Your task to perform on an android device: Search for the best selling vase on Crate & Barrel Image 0: 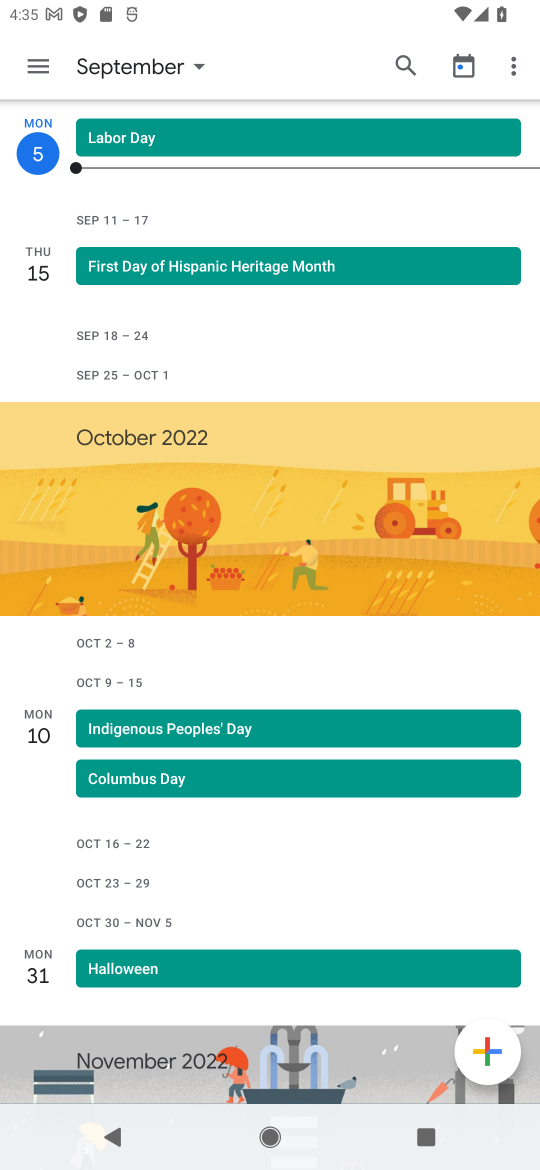
Step 0: press home button
Your task to perform on an android device: Search for the best selling vase on Crate & Barrel Image 1: 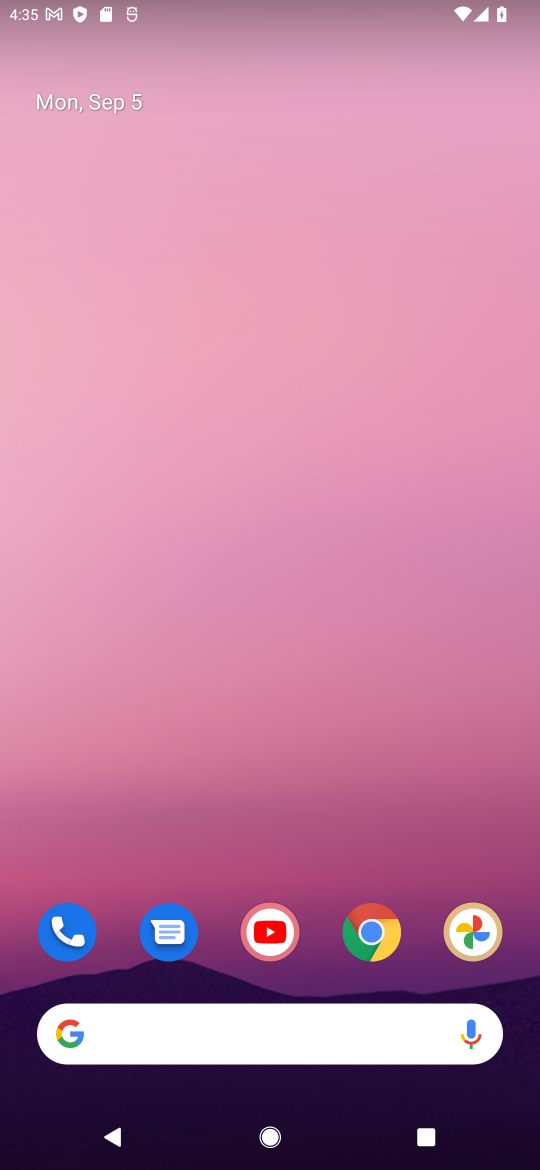
Step 1: drag from (292, 1011) to (263, 32)
Your task to perform on an android device: Search for the best selling vase on Crate & Barrel Image 2: 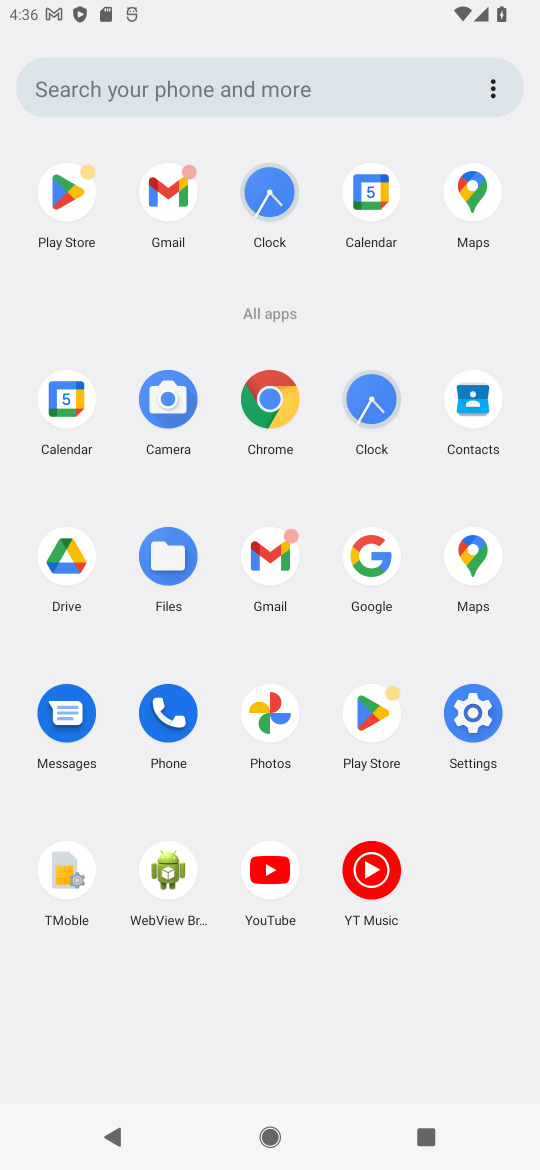
Step 2: click (363, 566)
Your task to perform on an android device: Search for the best selling vase on Crate & Barrel Image 3: 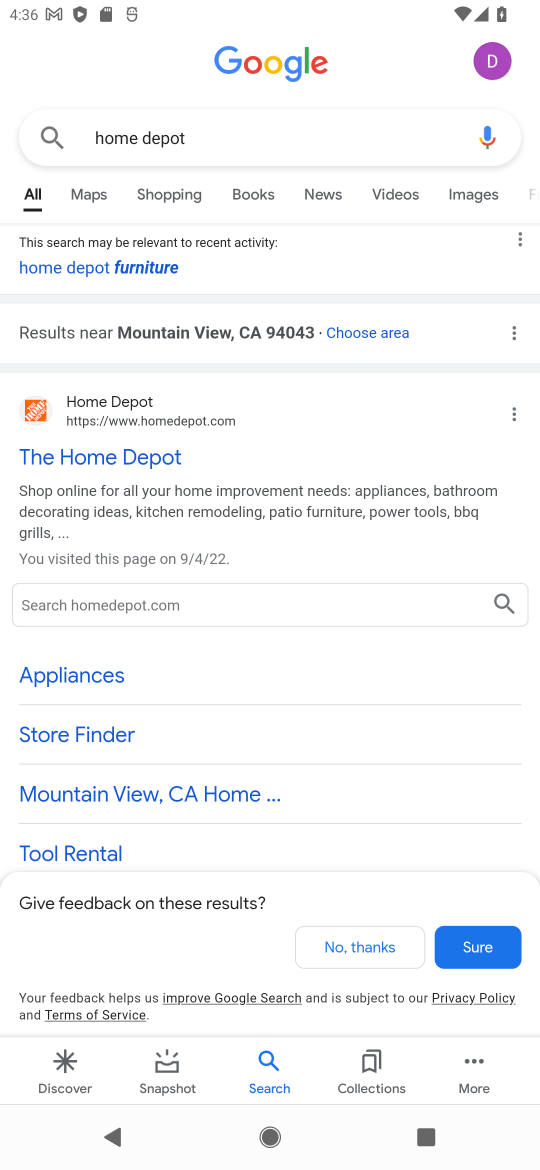
Step 3: click (230, 144)
Your task to perform on an android device: Search for the best selling vase on Crate & Barrel Image 4: 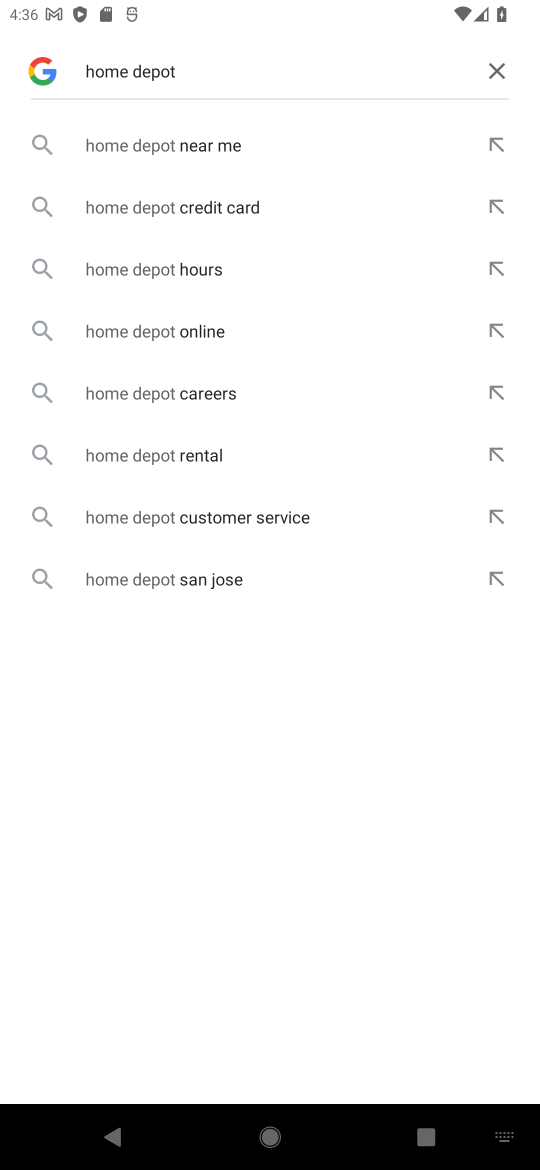
Step 4: click (489, 58)
Your task to perform on an android device: Search for the best selling vase on Crate & Barrel Image 5: 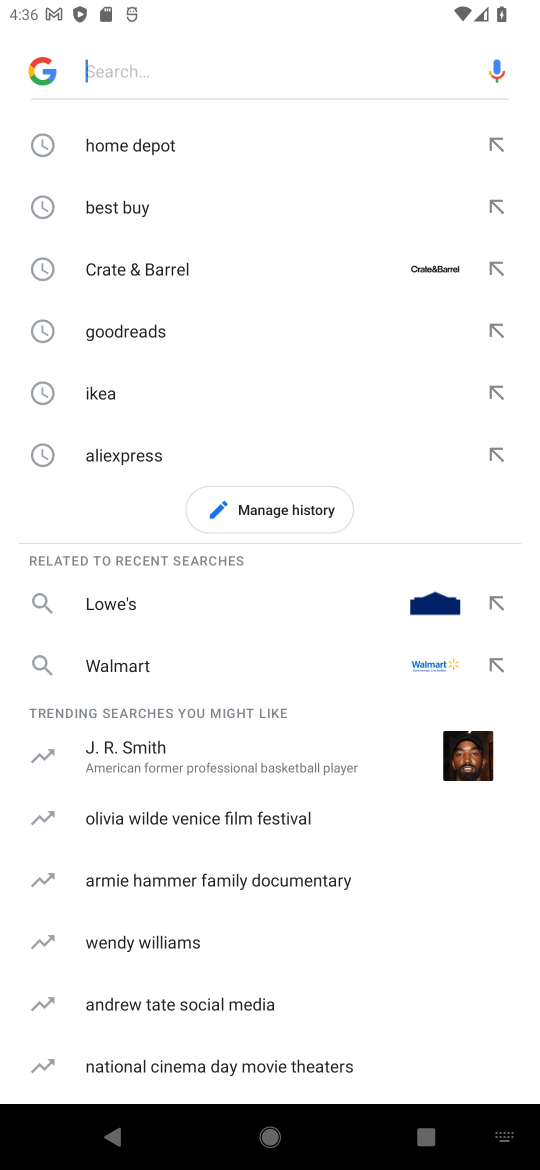
Step 5: type "Crate & Barrel"
Your task to perform on an android device: Search for the best selling vase on Crate & Barrel Image 6: 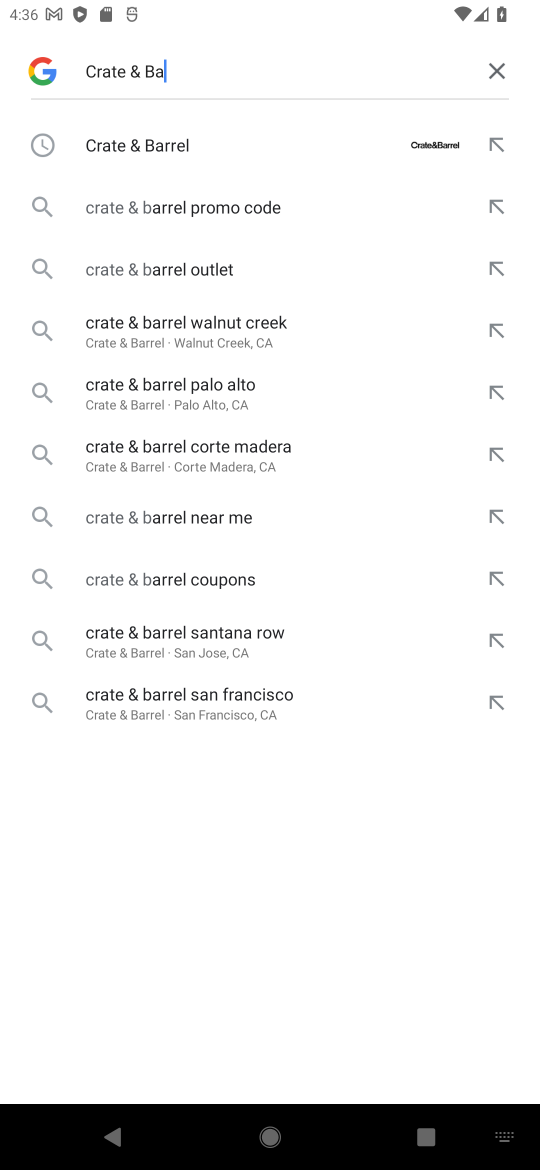
Step 6: type ""
Your task to perform on an android device: Search for the best selling vase on Crate & Barrel Image 7: 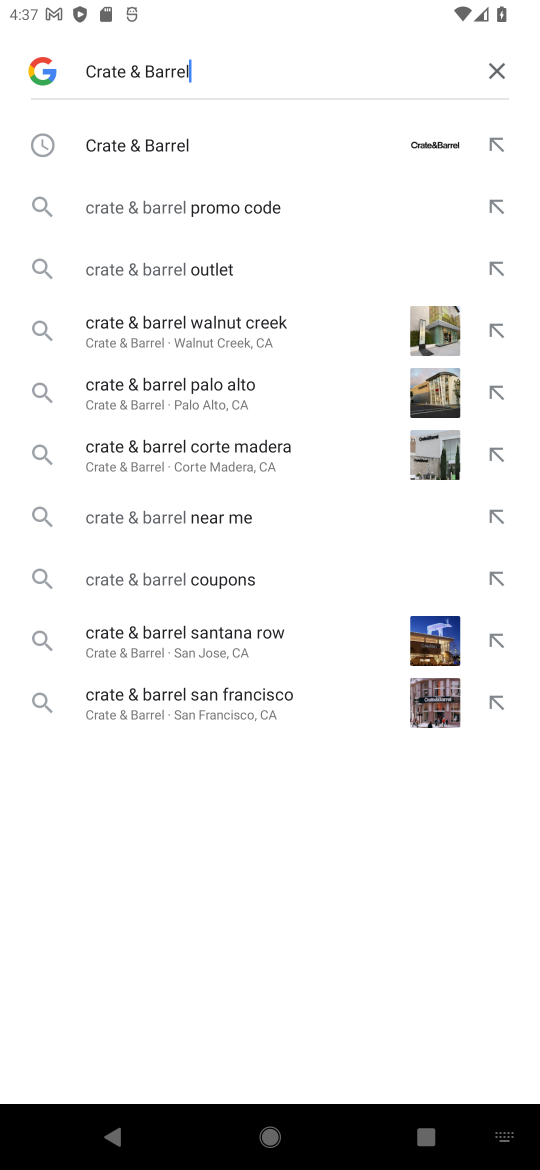
Step 7: click (152, 145)
Your task to perform on an android device: Search for the best selling vase on Crate & Barrel Image 8: 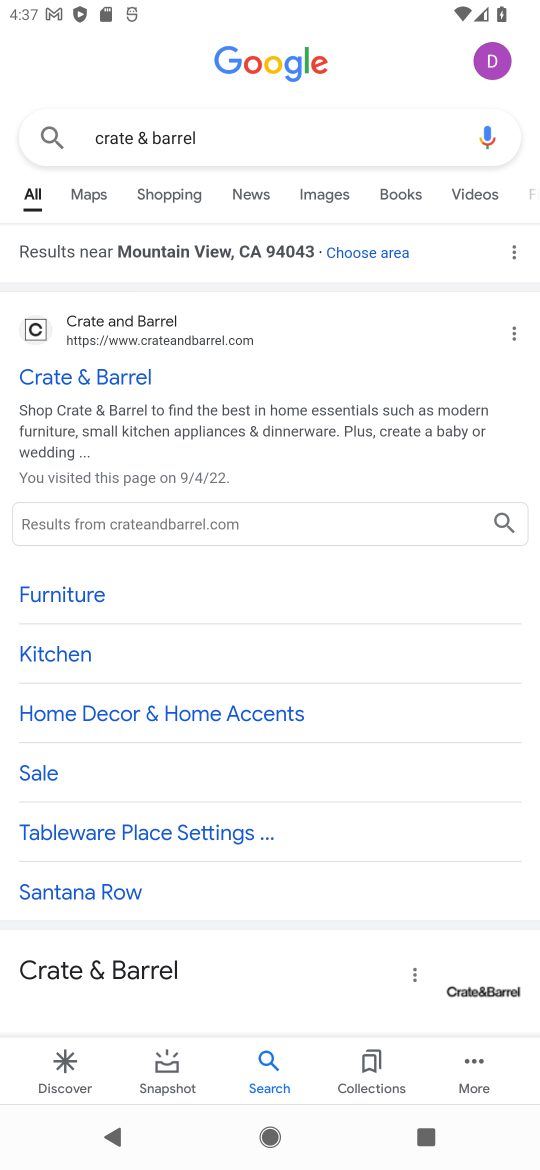
Step 8: click (121, 384)
Your task to perform on an android device: Search for the best selling vase on Crate & Barrel Image 9: 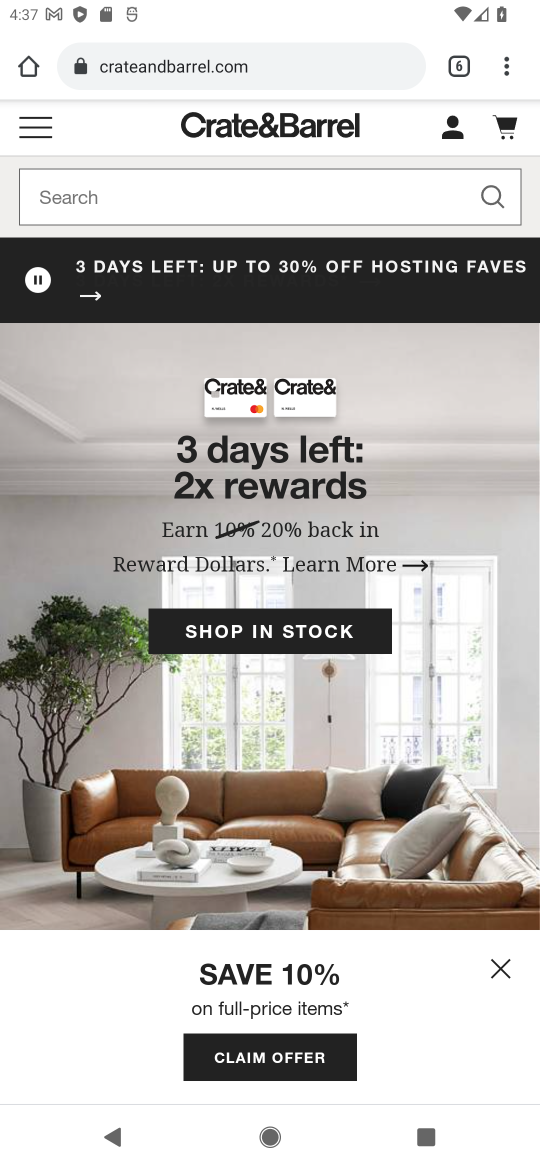
Step 9: click (180, 196)
Your task to perform on an android device: Search for the best selling vase on Crate & Barrel Image 10: 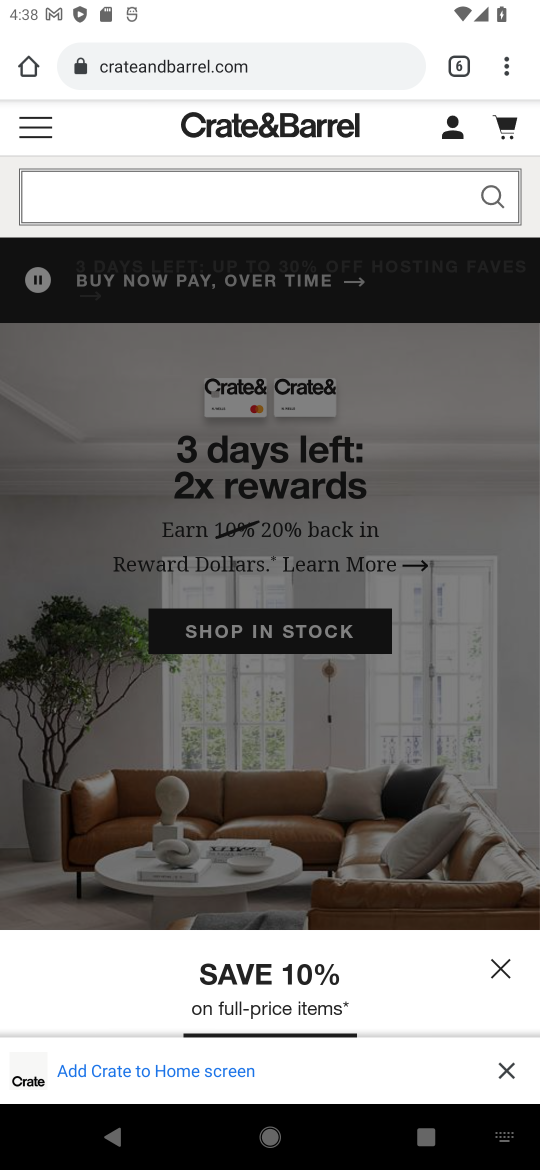
Step 10: type "best selling vase"
Your task to perform on an android device: Search for the best selling vase on Crate & Barrel Image 11: 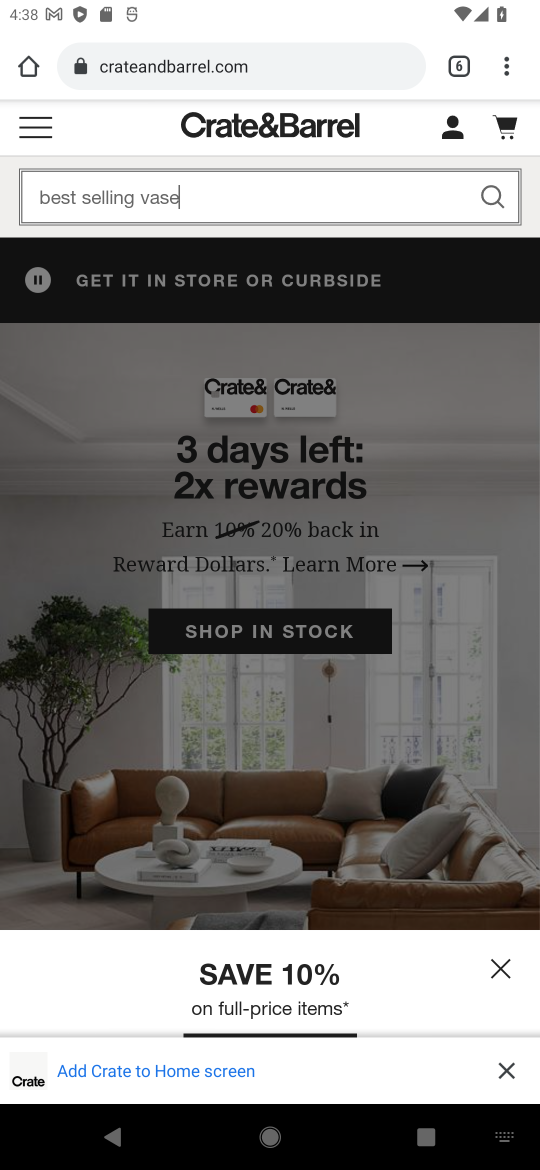
Step 11: click (492, 190)
Your task to perform on an android device: Search for the best selling vase on Crate & Barrel Image 12: 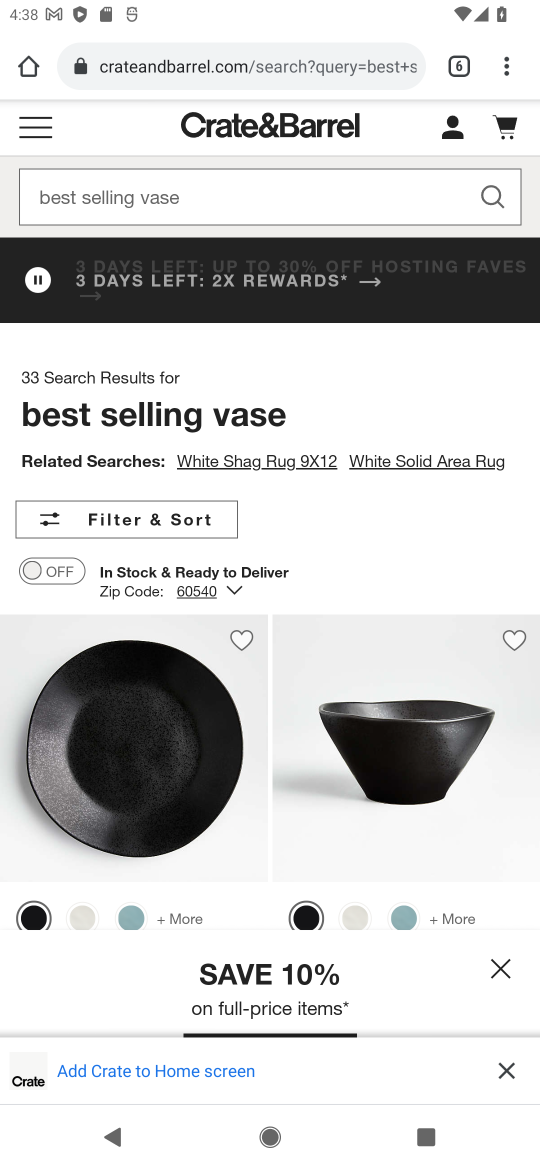
Step 12: click (505, 972)
Your task to perform on an android device: Search for the best selling vase on Crate & Barrel Image 13: 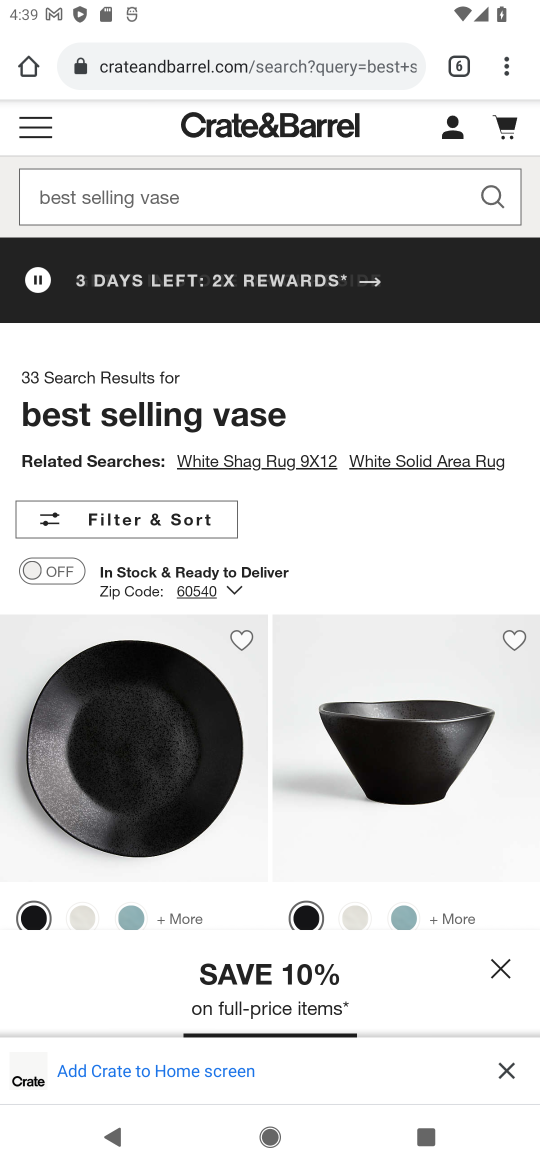
Step 13: task complete